Your task to perform on an android device: Go to calendar. Show me events next week Image 0: 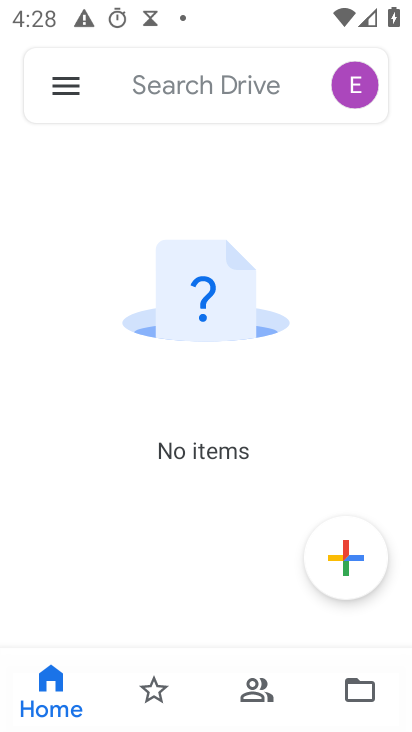
Step 0: press back button
Your task to perform on an android device: Go to calendar. Show me events next week Image 1: 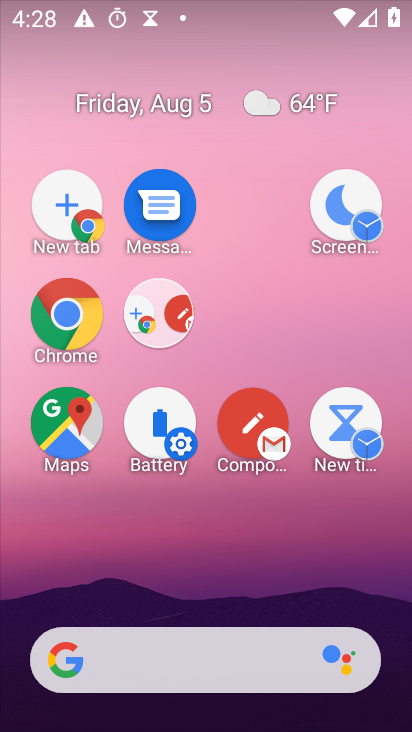
Step 1: drag from (190, 648) to (129, 203)
Your task to perform on an android device: Go to calendar. Show me events next week Image 2: 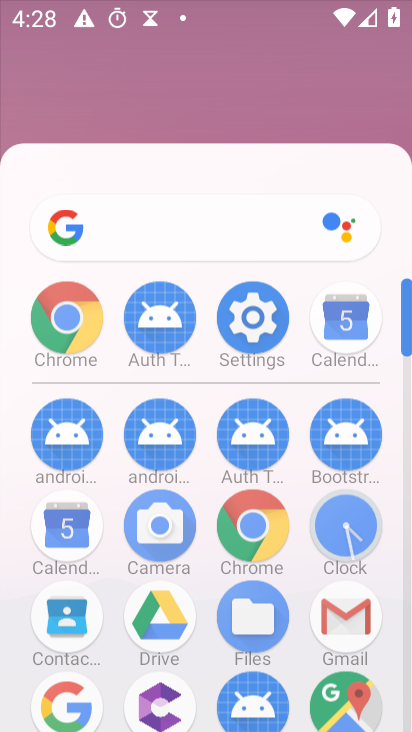
Step 2: drag from (245, 577) to (219, 215)
Your task to perform on an android device: Go to calendar. Show me events next week Image 3: 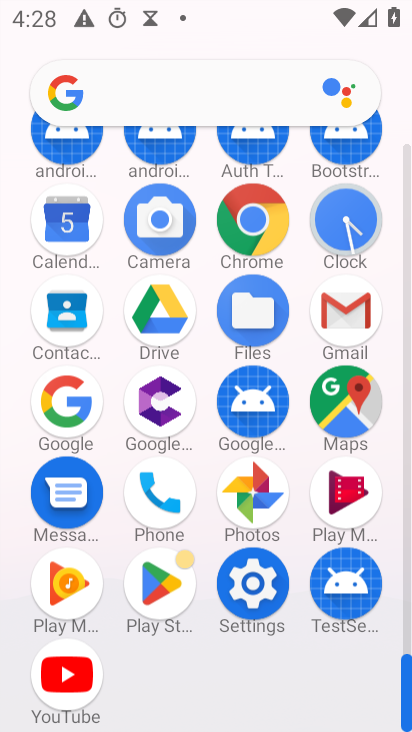
Step 3: drag from (174, 289) to (154, 130)
Your task to perform on an android device: Go to calendar. Show me events next week Image 4: 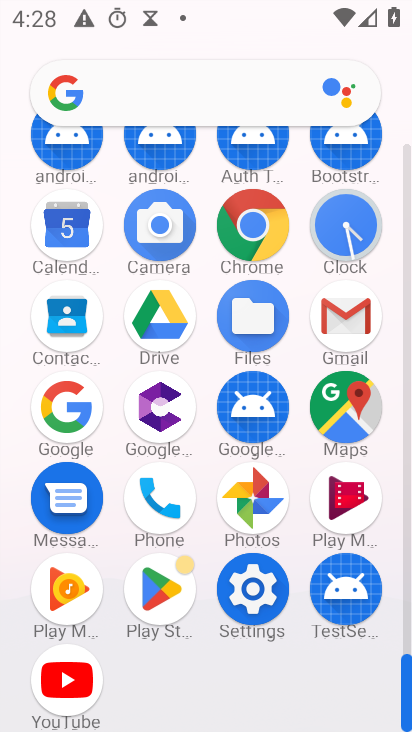
Step 4: click (330, 244)
Your task to perform on an android device: Go to calendar. Show me events next week Image 5: 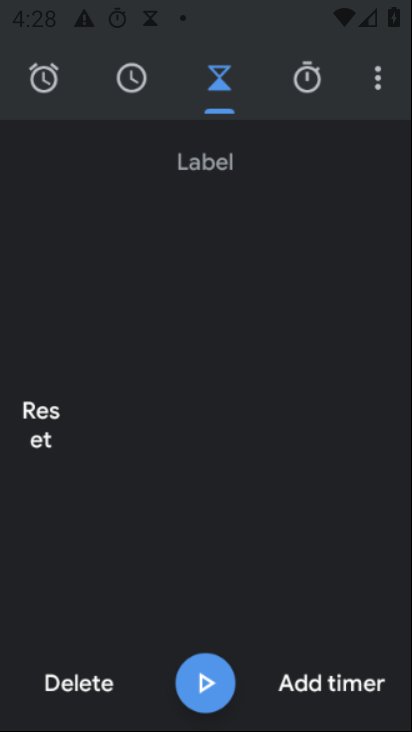
Step 5: click (267, 311)
Your task to perform on an android device: Go to calendar. Show me events next week Image 6: 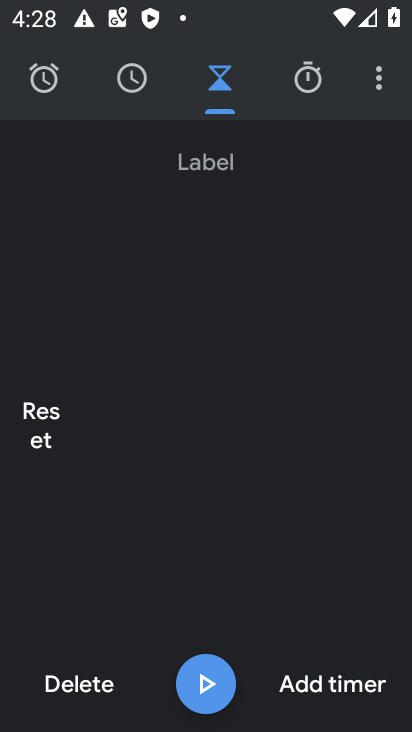
Step 6: press back button
Your task to perform on an android device: Go to calendar. Show me events next week Image 7: 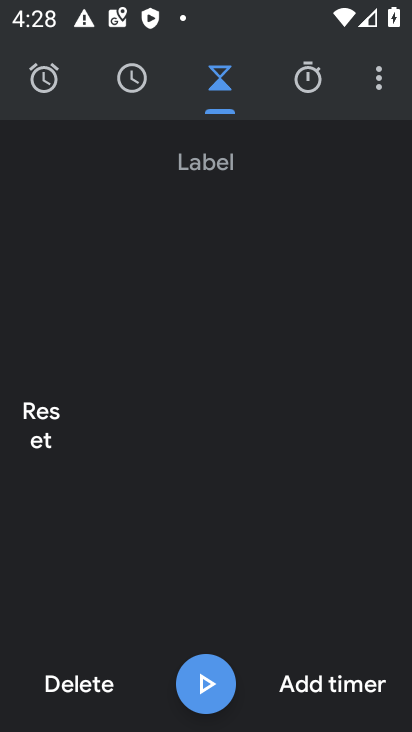
Step 7: drag from (130, 570) to (181, 703)
Your task to perform on an android device: Go to calendar. Show me events next week Image 8: 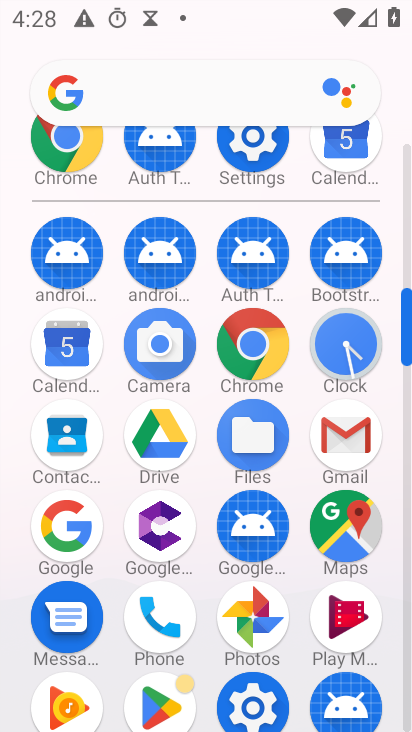
Step 8: click (342, 139)
Your task to perform on an android device: Go to calendar. Show me events next week Image 9: 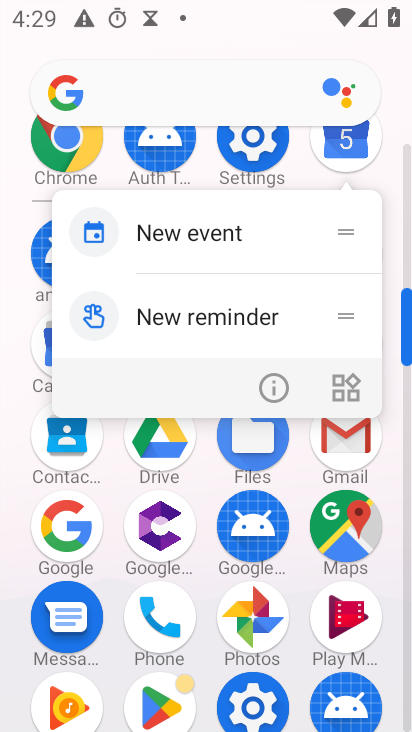
Step 9: click (344, 151)
Your task to perform on an android device: Go to calendar. Show me events next week Image 10: 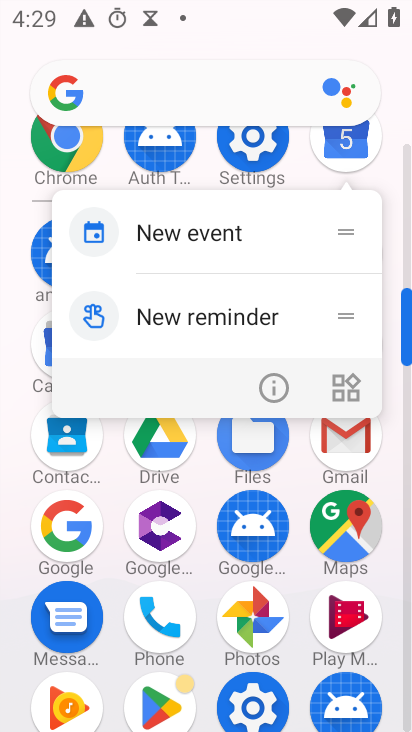
Step 10: click (178, 239)
Your task to perform on an android device: Go to calendar. Show me events next week Image 11: 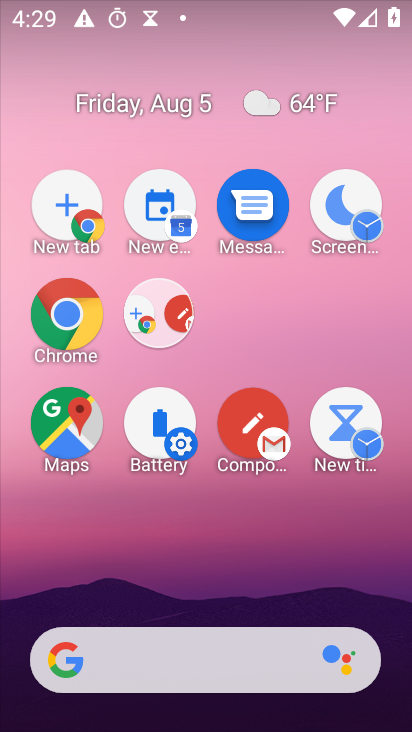
Step 11: drag from (242, 701) to (79, 174)
Your task to perform on an android device: Go to calendar. Show me events next week Image 12: 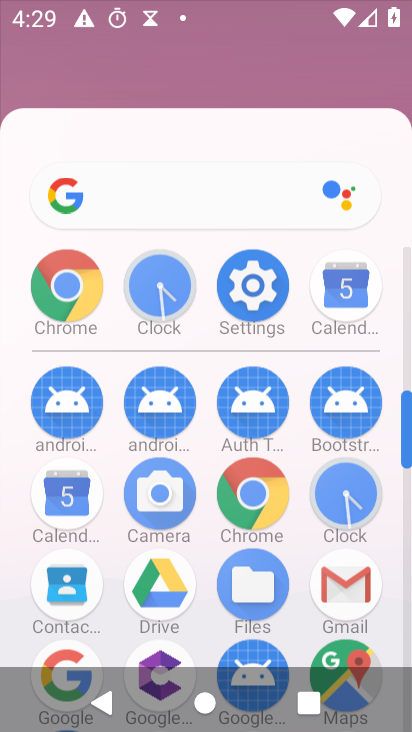
Step 12: drag from (117, 493) to (89, 208)
Your task to perform on an android device: Go to calendar. Show me events next week Image 13: 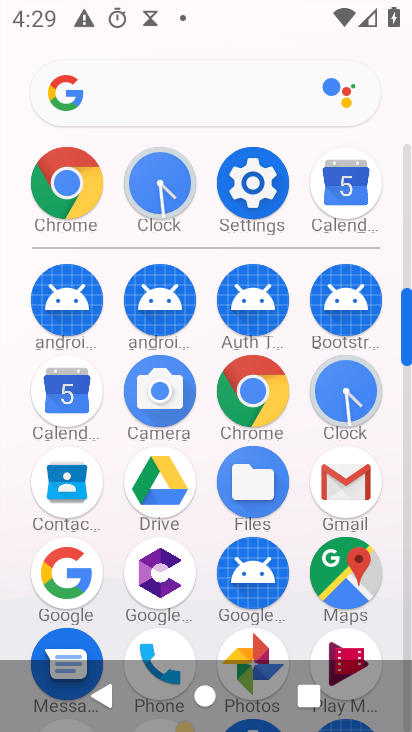
Step 13: drag from (174, 505) to (131, 171)
Your task to perform on an android device: Go to calendar. Show me events next week Image 14: 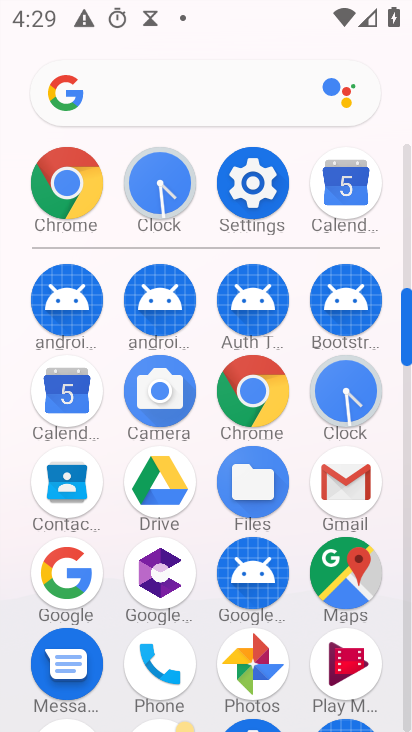
Step 14: click (337, 191)
Your task to perform on an android device: Go to calendar. Show me events next week Image 15: 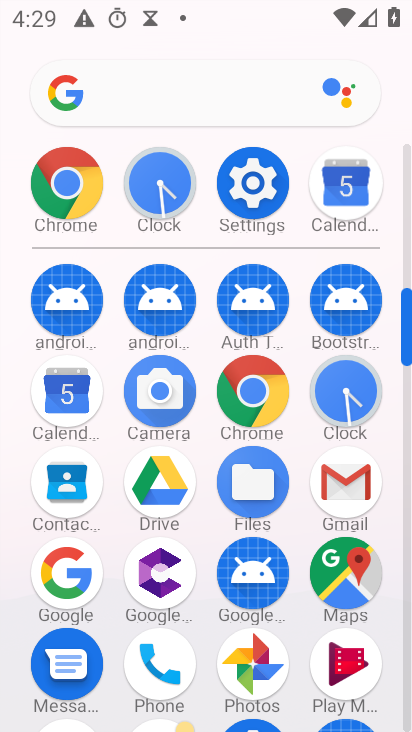
Step 15: click (337, 191)
Your task to perform on an android device: Go to calendar. Show me events next week Image 16: 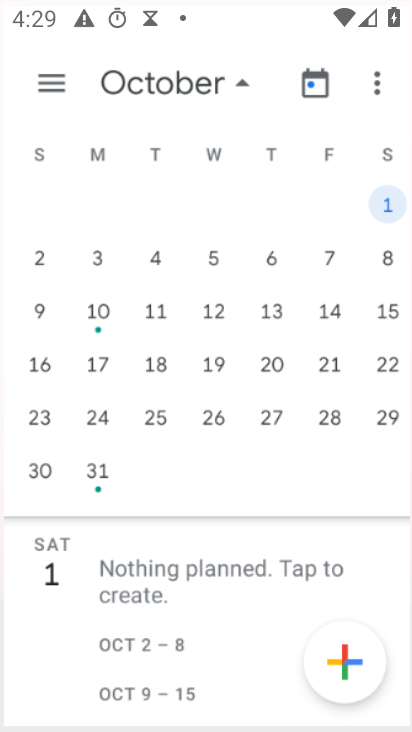
Step 16: click (337, 191)
Your task to perform on an android device: Go to calendar. Show me events next week Image 17: 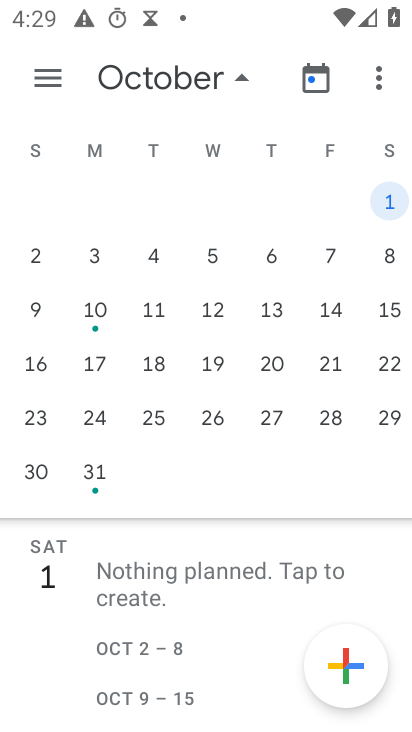
Step 17: click (337, 191)
Your task to perform on an android device: Go to calendar. Show me events next week Image 18: 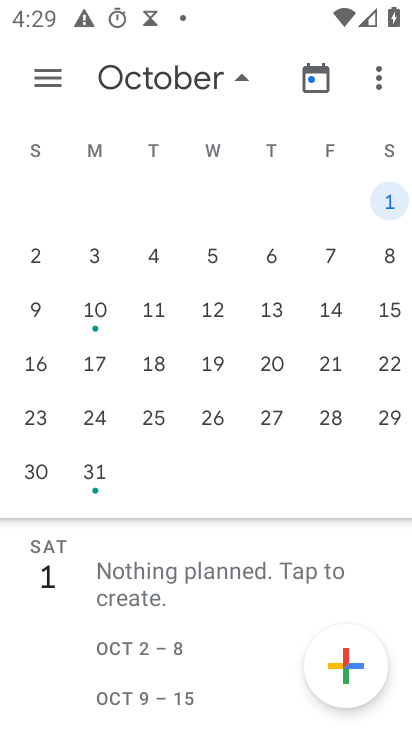
Step 18: click (337, 191)
Your task to perform on an android device: Go to calendar. Show me events next week Image 19: 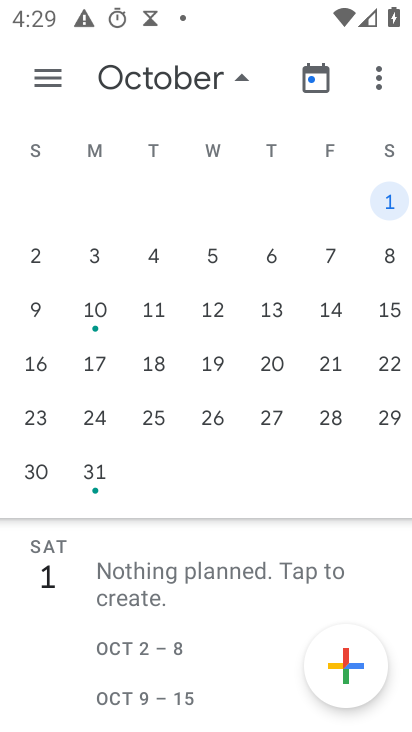
Step 19: click (393, 252)
Your task to perform on an android device: Go to calendar. Show me events next week Image 20: 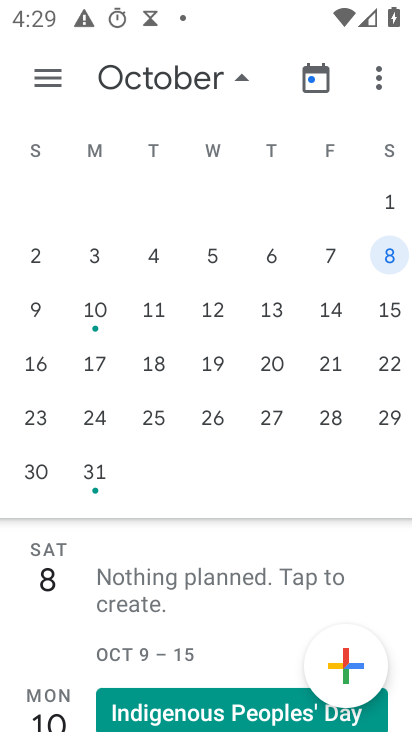
Step 20: task complete